Your task to perform on an android device: turn on sleep mode Image 0: 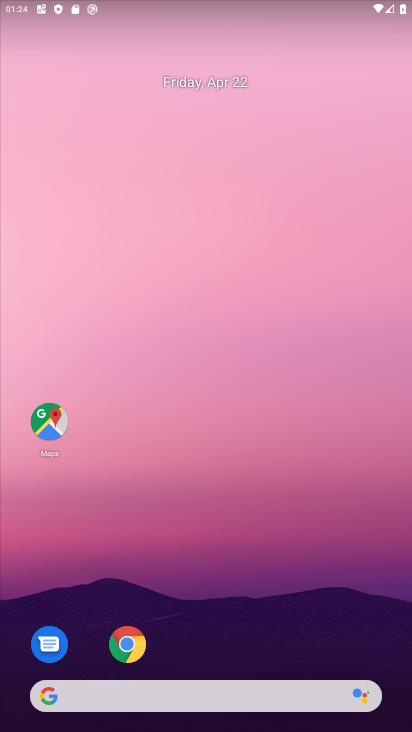
Step 0: drag from (359, 600) to (250, 228)
Your task to perform on an android device: turn on sleep mode Image 1: 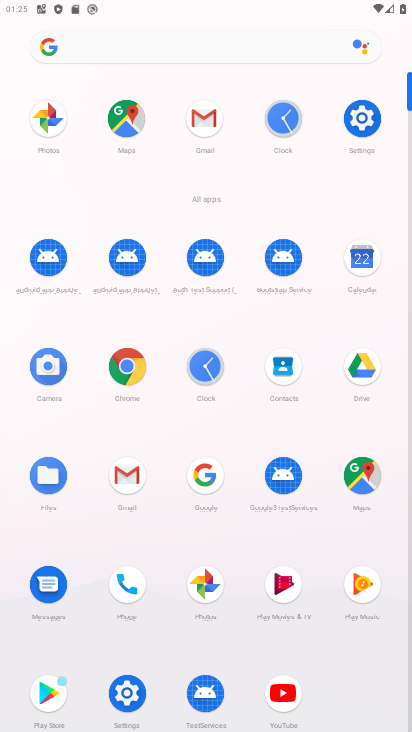
Step 1: click (369, 114)
Your task to perform on an android device: turn on sleep mode Image 2: 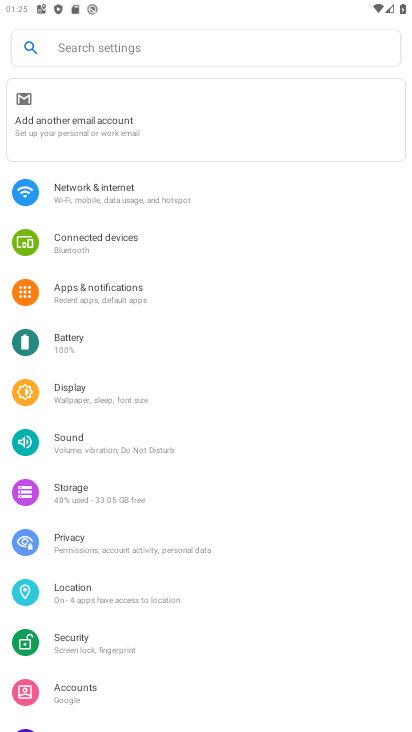
Step 2: click (185, 388)
Your task to perform on an android device: turn on sleep mode Image 3: 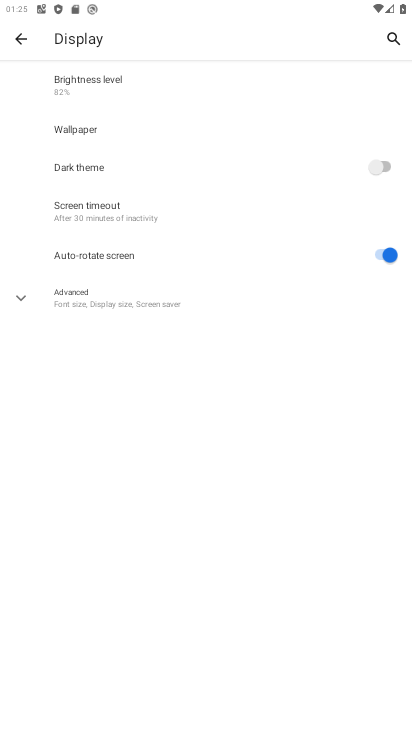
Step 3: click (187, 308)
Your task to perform on an android device: turn on sleep mode Image 4: 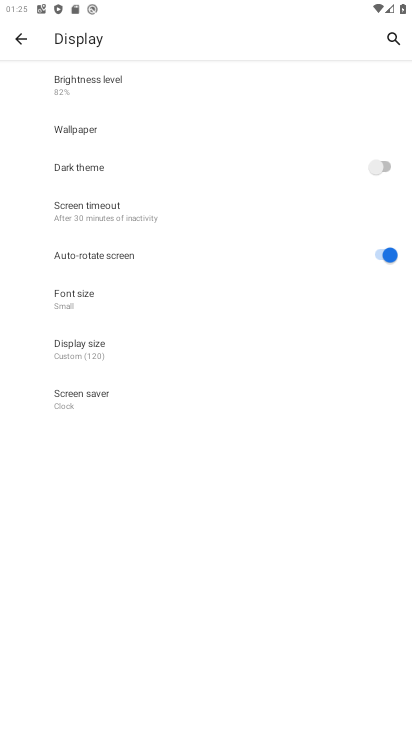
Step 4: task complete